Your task to perform on an android device: Go to Amazon Image 0: 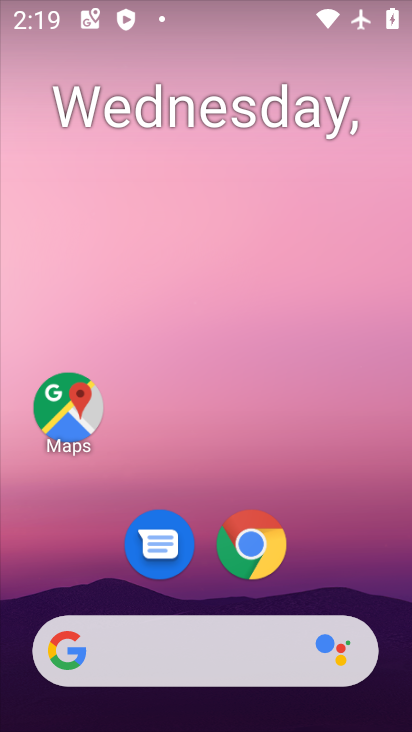
Step 0: drag from (344, 568) to (340, 170)
Your task to perform on an android device: Go to Amazon Image 1: 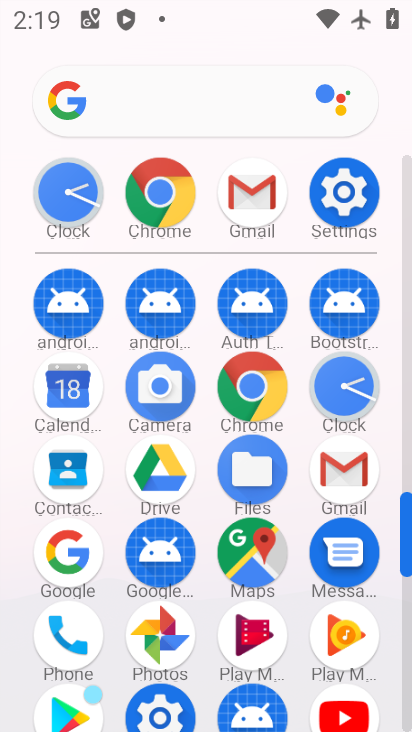
Step 1: click (135, 165)
Your task to perform on an android device: Go to Amazon Image 2: 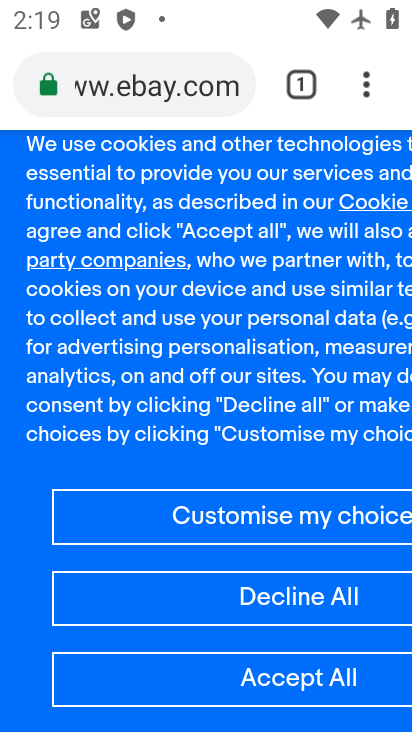
Step 2: click (228, 91)
Your task to perform on an android device: Go to Amazon Image 3: 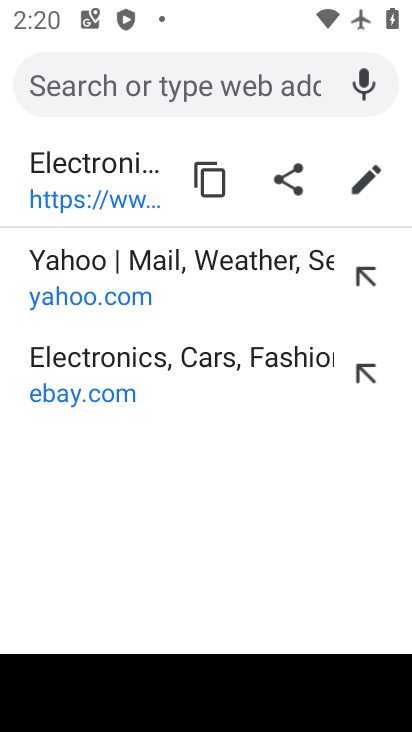
Step 3: type "amazon.com"
Your task to perform on an android device: Go to Amazon Image 4: 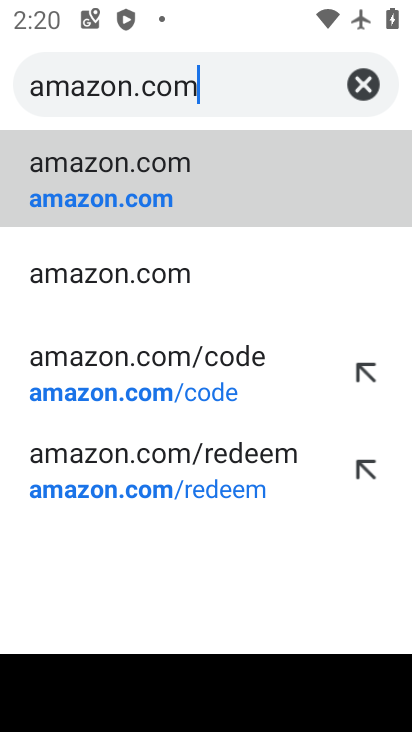
Step 4: click (223, 210)
Your task to perform on an android device: Go to Amazon Image 5: 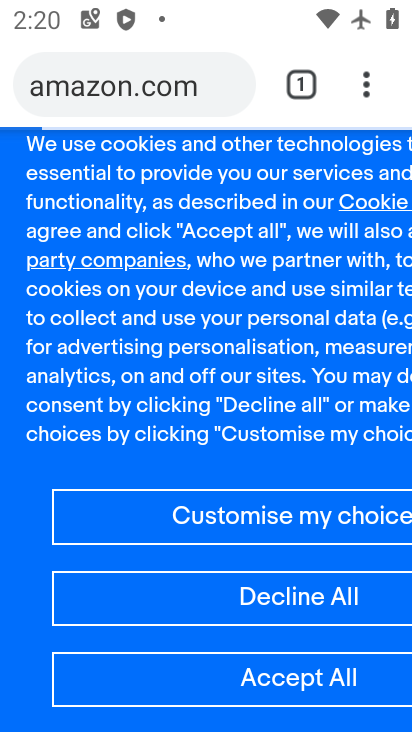
Step 5: task complete